Your task to perform on an android device: turn off sleep mode Image 0: 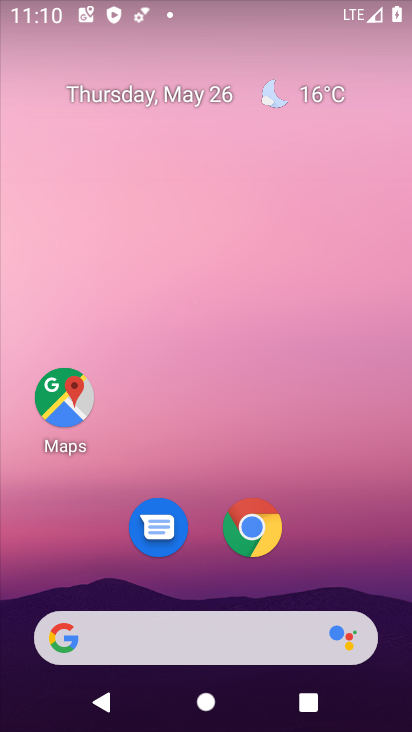
Step 0: drag from (210, 573) to (212, 1)
Your task to perform on an android device: turn off sleep mode Image 1: 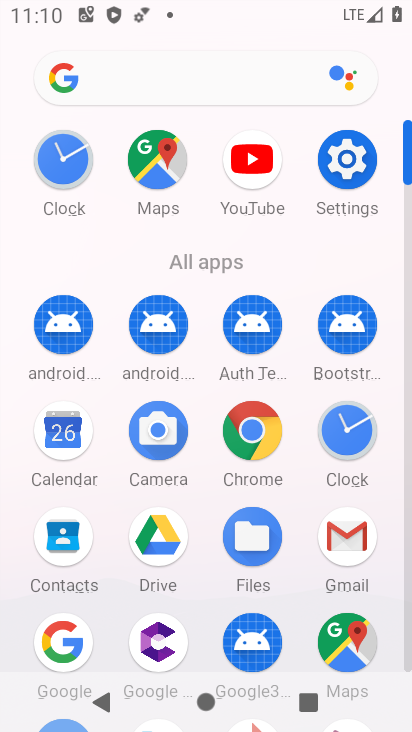
Step 1: click (335, 165)
Your task to perform on an android device: turn off sleep mode Image 2: 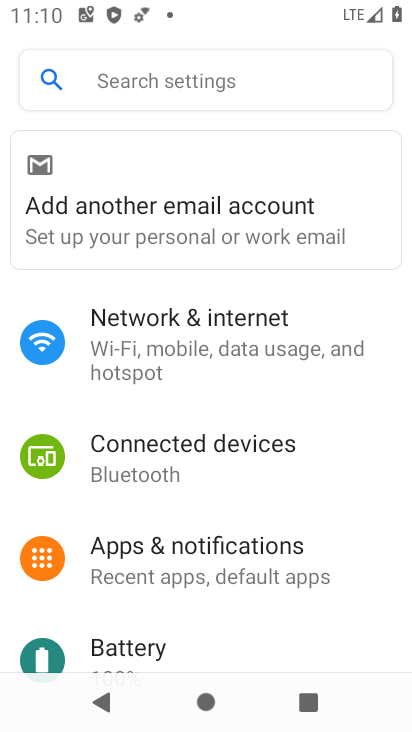
Step 2: drag from (287, 594) to (292, 326)
Your task to perform on an android device: turn off sleep mode Image 3: 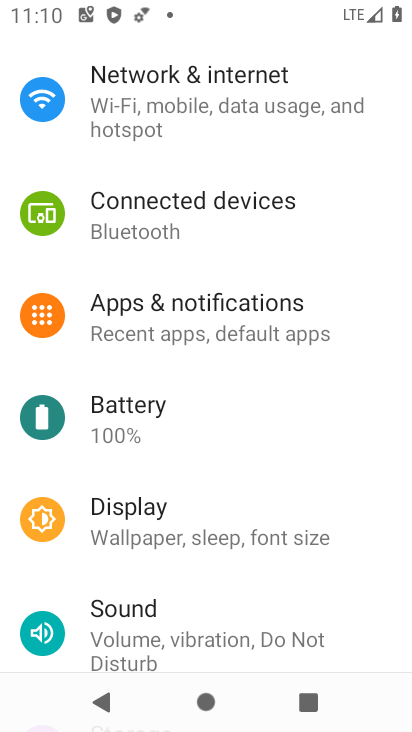
Step 3: drag from (238, 588) to (211, 357)
Your task to perform on an android device: turn off sleep mode Image 4: 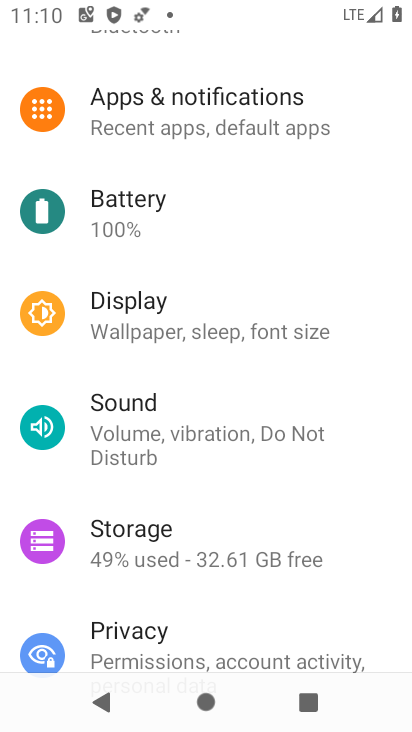
Step 4: click (224, 341)
Your task to perform on an android device: turn off sleep mode Image 5: 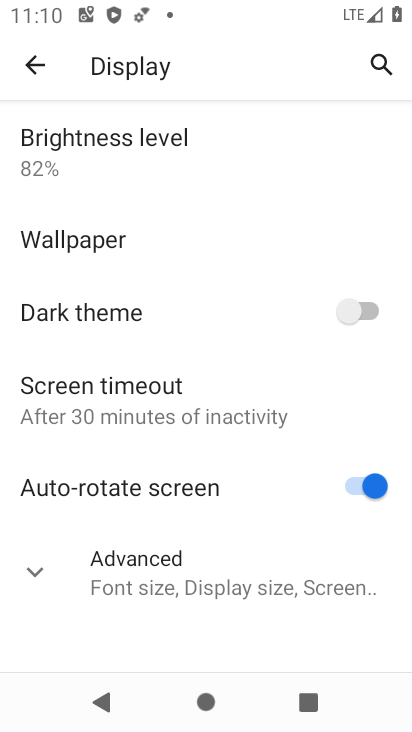
Step 5: drag from (213, 580) to (204, 282)
Your task to perform on an android device: turn off sleep mode Image 6: 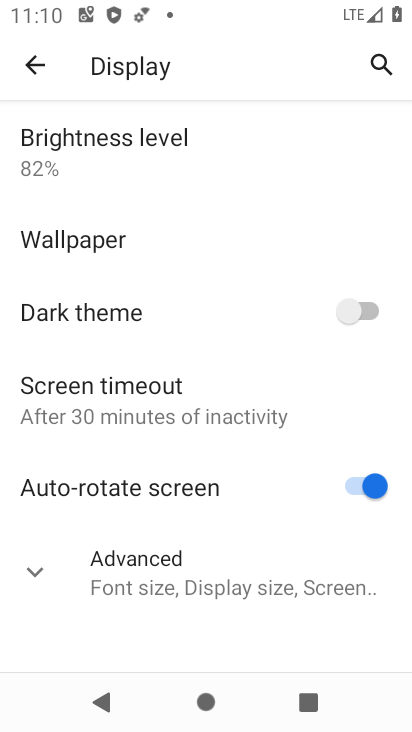
Step 6: click (182, 585)
Your task to perform on an android device: turn off sleep mode Image 7: 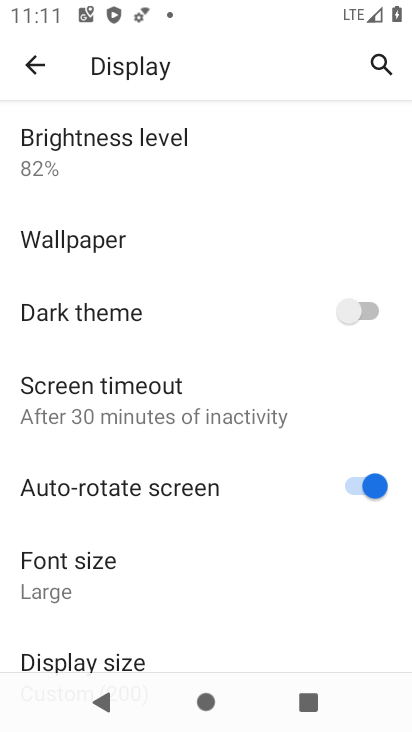
Step 7: task complete